Your task to perform on an android device: Set the phone to "Do not disturb". Image 0: 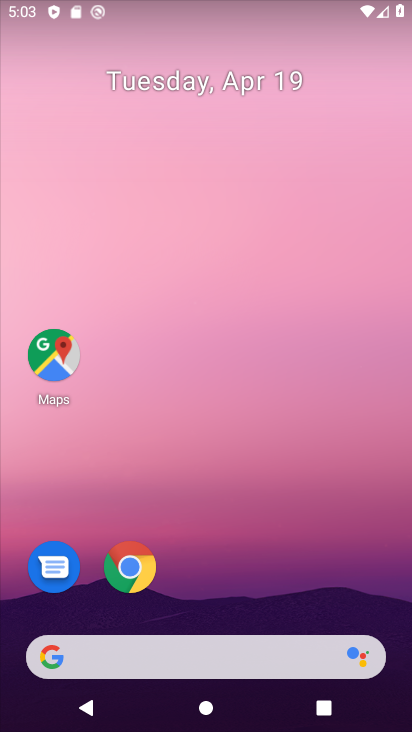
Step 0: drag from (243, 503) to (177, 35)
Your task to perform on an android device: Set the phone to "Do not disturb". Image 1: 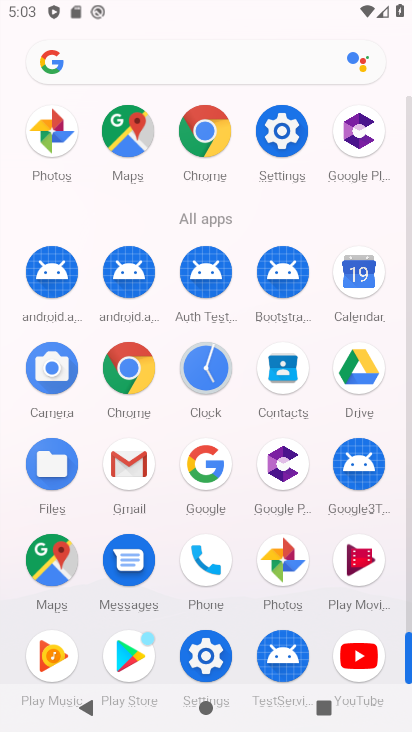
Step 1: click (210, 655)
Your task to perform on an android device: Set the phone to "Do not disturb". Image 2: 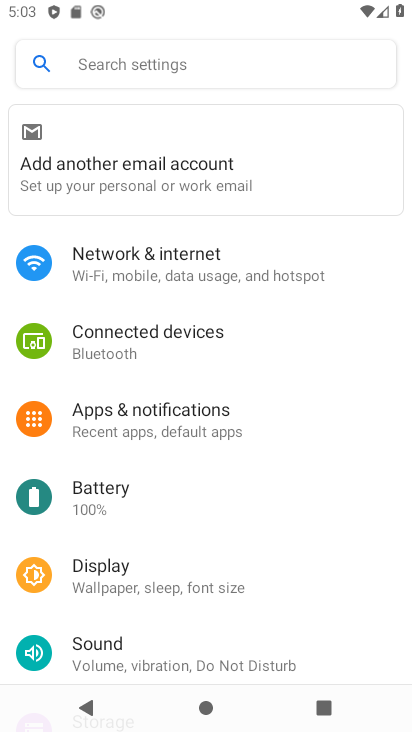
Step 2: click (195, 656)
Your task to perform on an android device: Set the phone to "Do not disturb". Image 3: 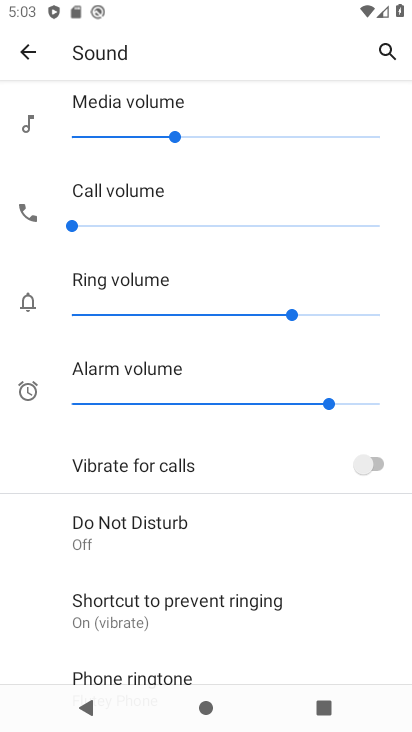
Step 3: drag from (224, 454) to (222, 179)
Your task to perform on an android device: Set the phone to "Do not disturb". Image 4: 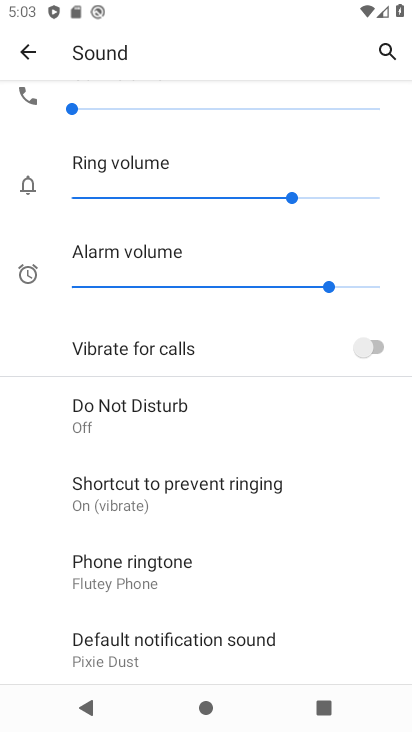
Step 4: drag from (225, 392) to (227, 231)
Your task to perform on an android device: Set the phone to "Do not disturb". Image 5: 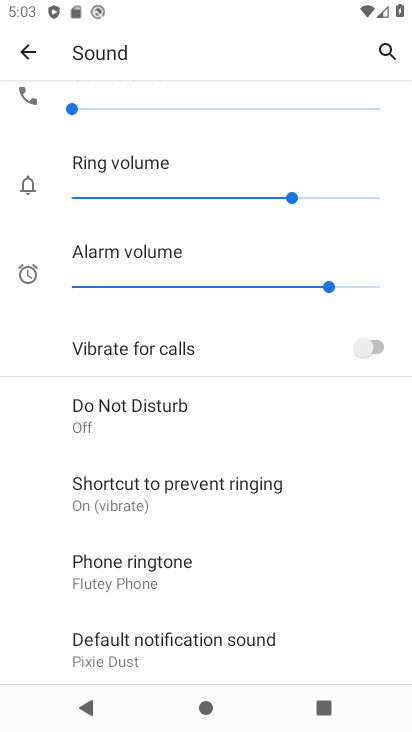
Step 5: click (190, 418)
Your task to perform on an android device: Set the phone to "Do not disturb". Image 6: 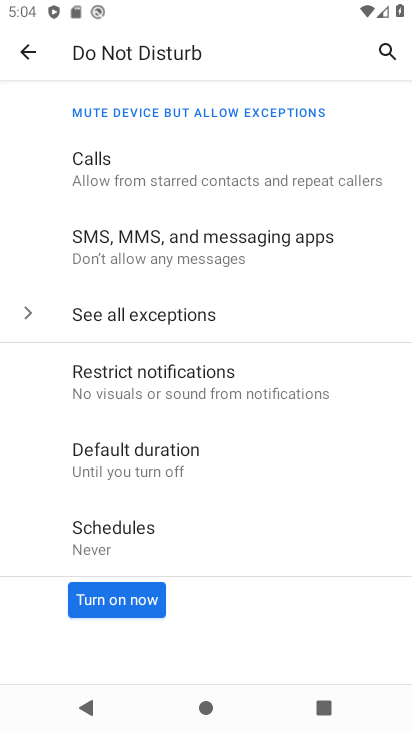
Step 6: click (137, 588)
Your task to perform on an android device: Set the phone to "Do not disturb". Image 7: 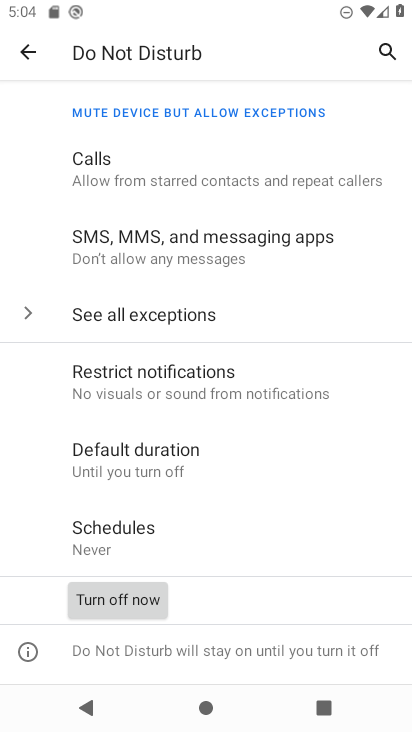
Step 7: task complete